Your task to perform on an android device: Open the calendar and show me this week's events? Image 0: 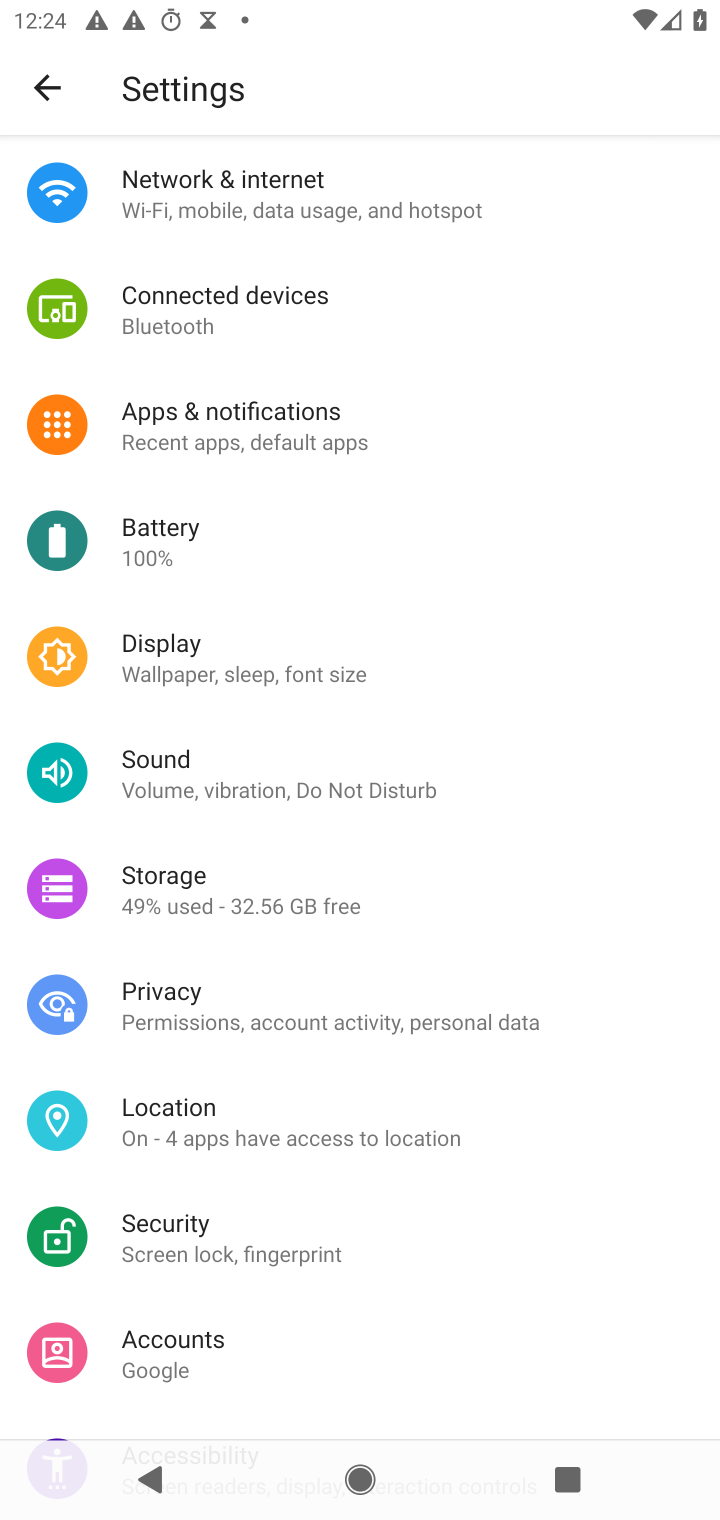
Step 0: press home button
Your task to perform on an android device: Open the calendar and show me this week's events? Image 1: 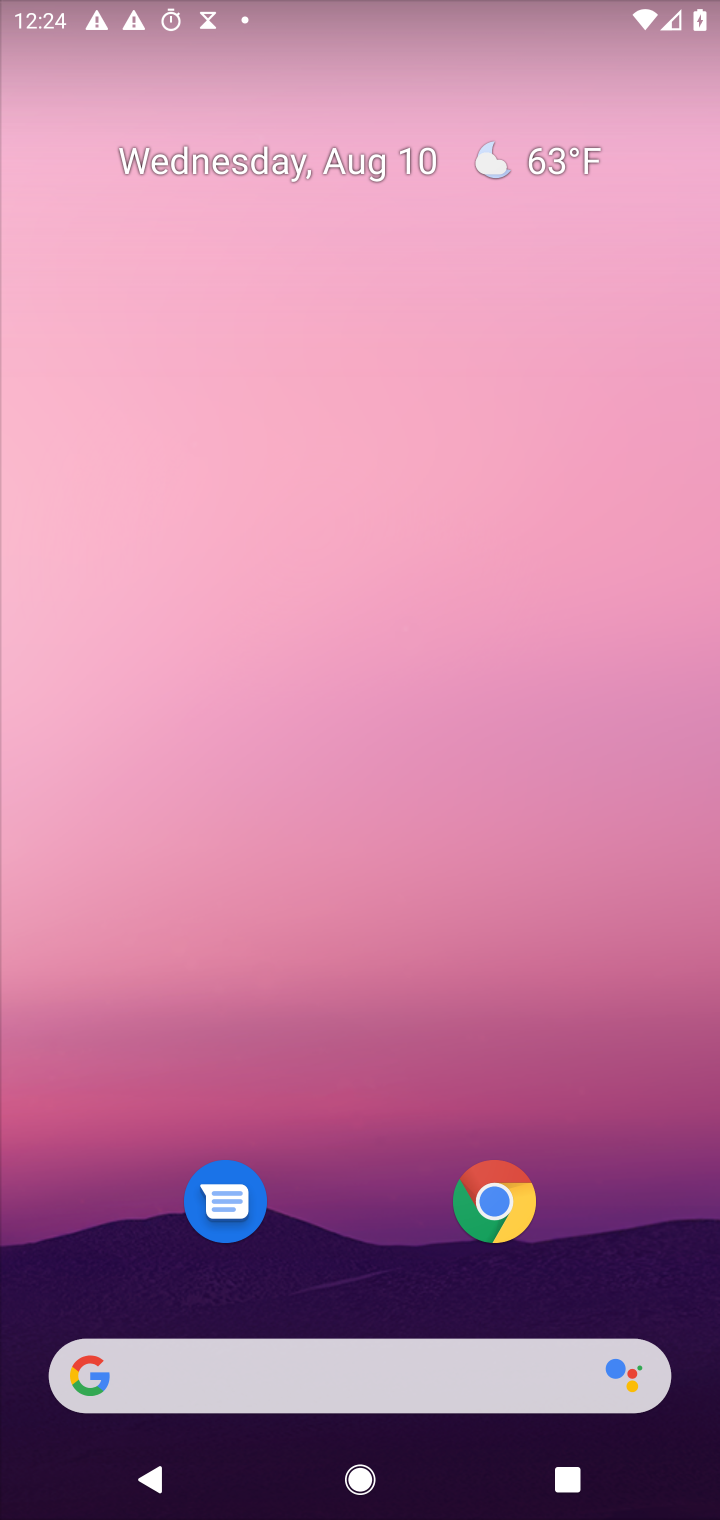
Step 1: drag from (307, 633) to (671, 31)
Your task to perform on an android device: Open the calendar and show me this week's events? Image 2: 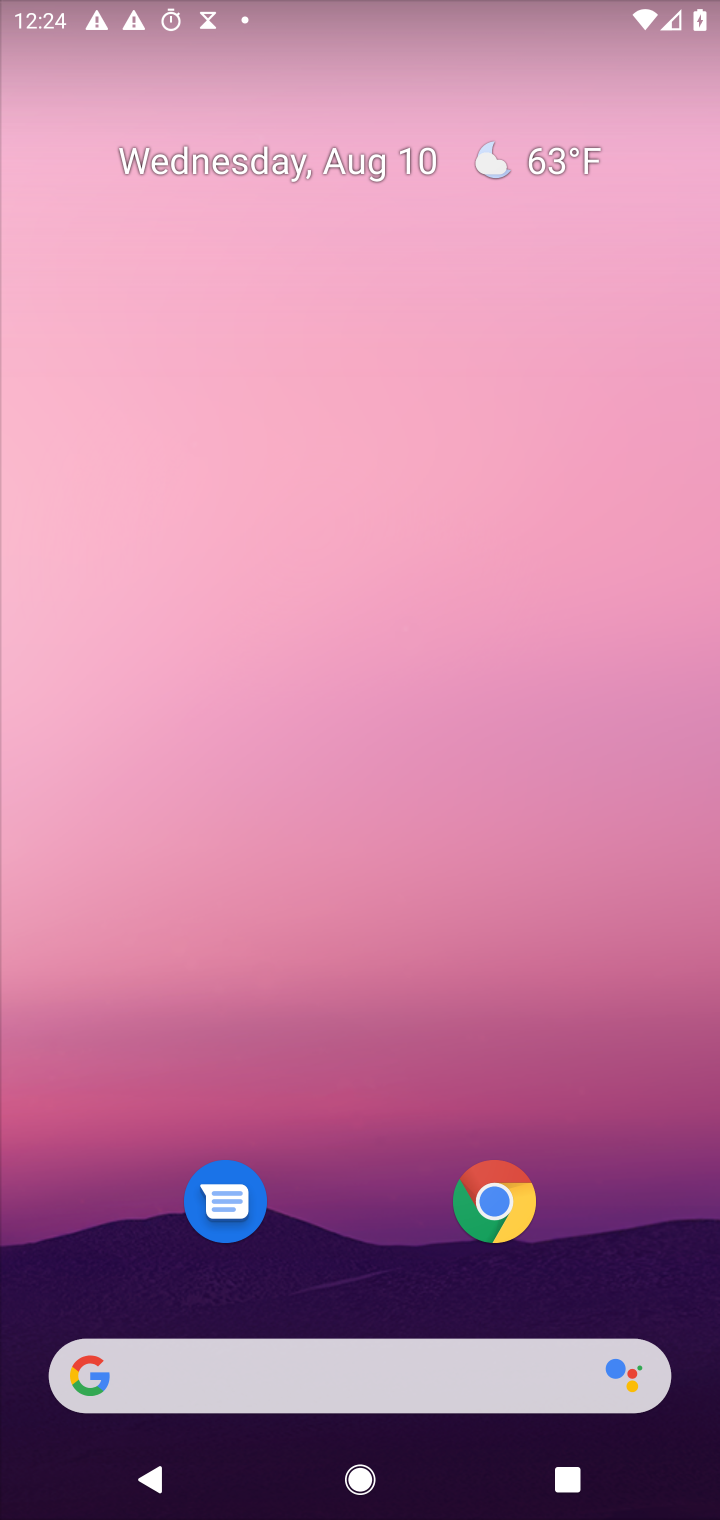
Step 2: drag from (360, 1181) to (354, 293)
Your task to perform on an android device: Open the calendar and show me this week's events? Image 3: 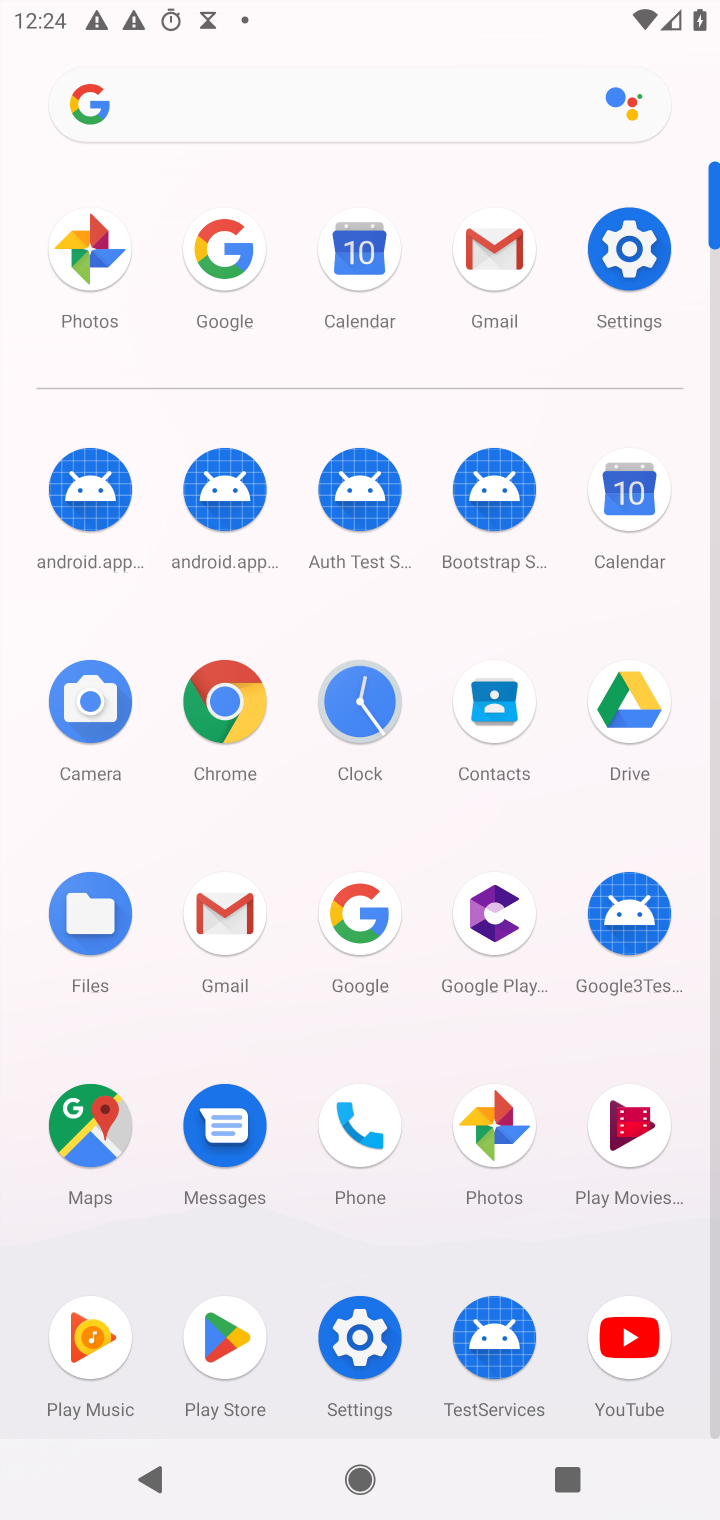
Step 3: click (605, 515)
Your task to perform on an android device: Open the calendar and show me this week's events? Image 4: 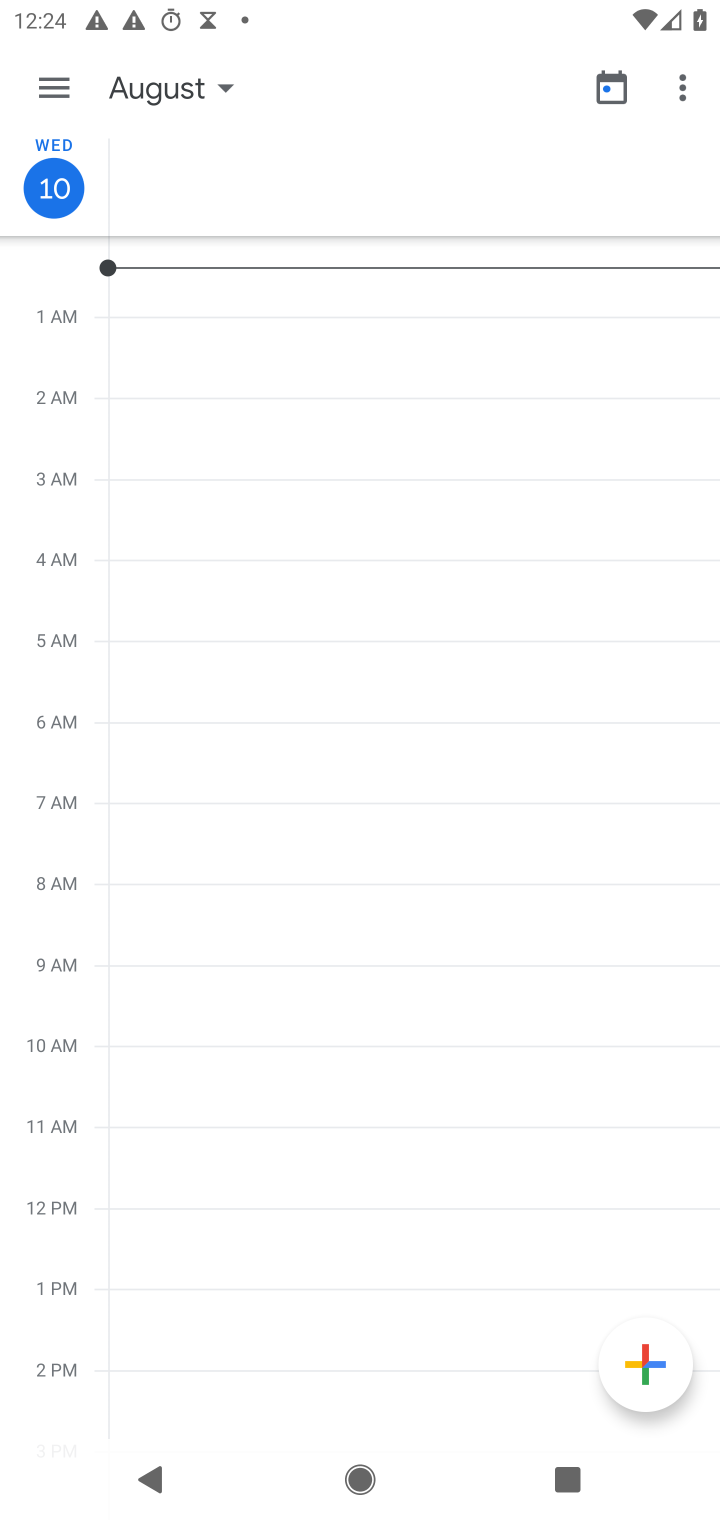
Step 4: click (53, 87)
Your task to perform on an android device: Open the calendar and show me this week's events? Image 5: 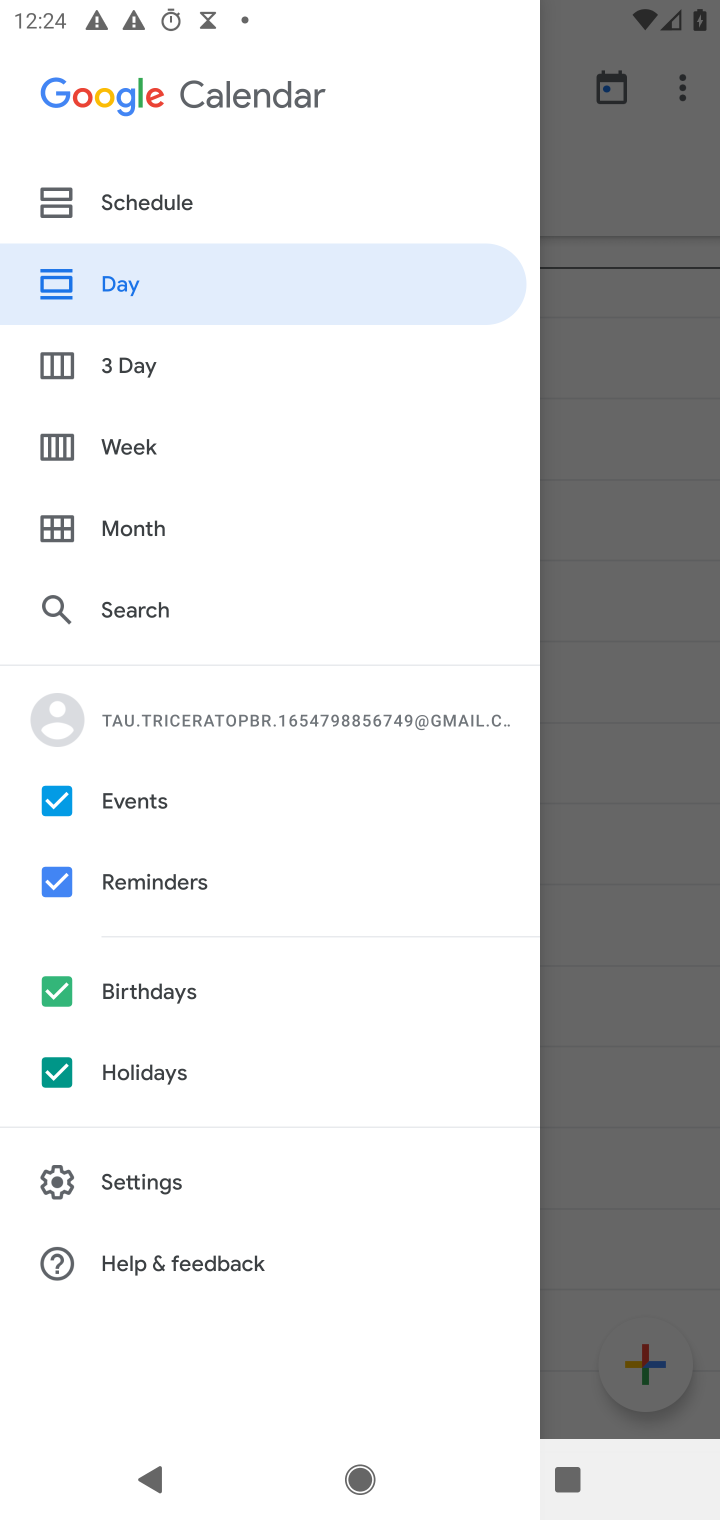
Step 5: click (129, 448)
Your task to perform on an android device: Open the calendar and show me this week's events? Image 6: 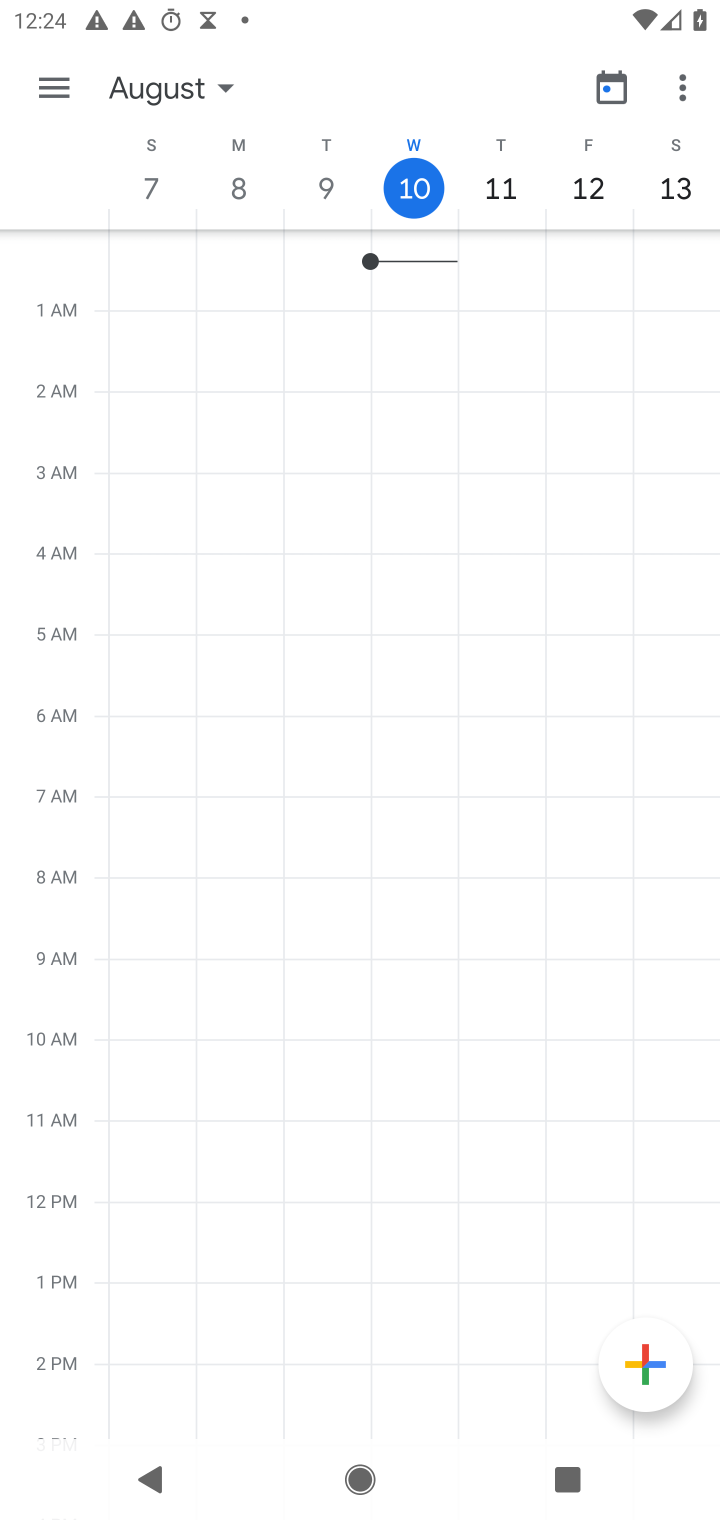
Step 6: task complete